Your task to perform on an android device: turn off wifi Image 0: 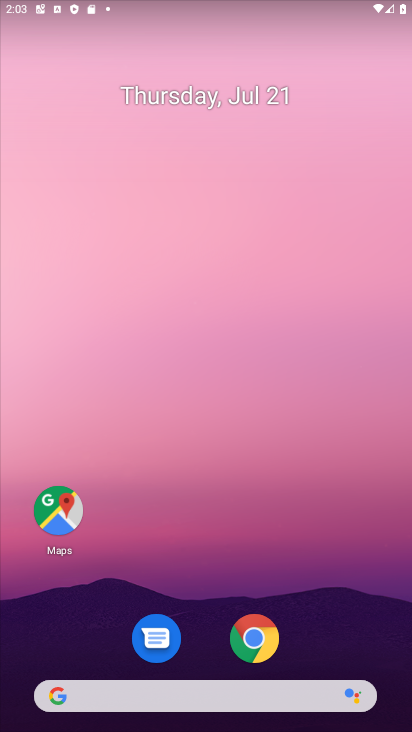
Step 0: drag from (211, 710) to (346, 174)
Your task to perform on an android device: turn off wifi Image 1: 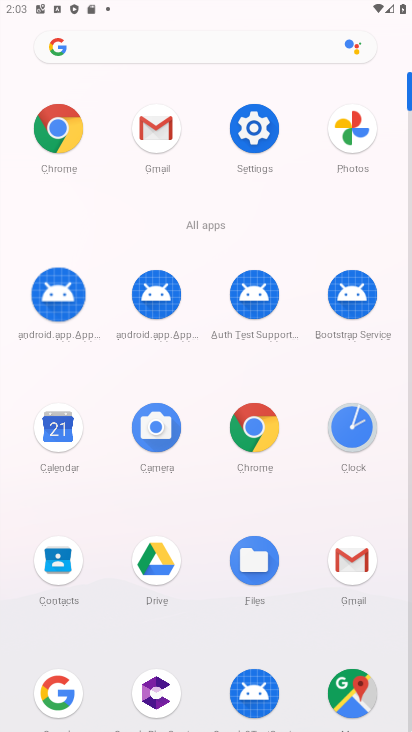
Step 1: click (245, 121)
Your task to perform on an android device: turn off wifi Image 2: 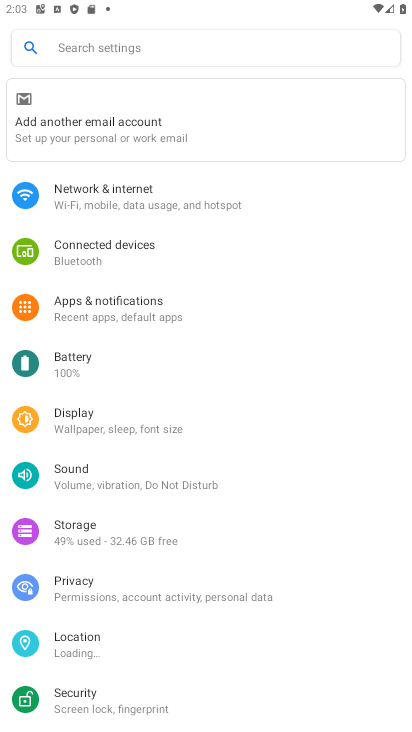
Step 2: click (205, 201)
Your task to perform on an android device: turn off wifi Image 3: 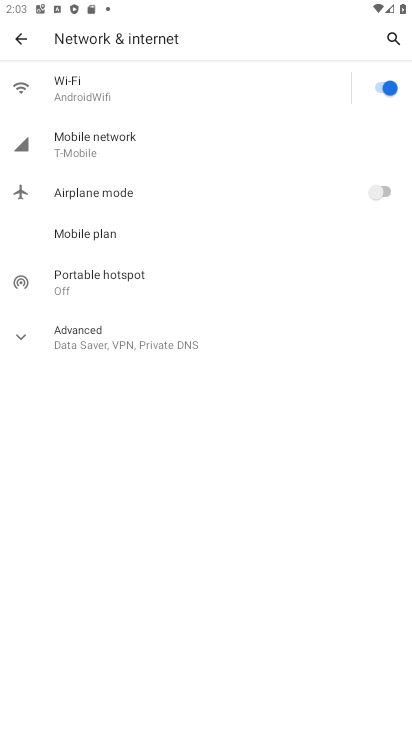
Step 3: click (396, 87)
Your task to perform on an android device: turn off wifi Image 4: 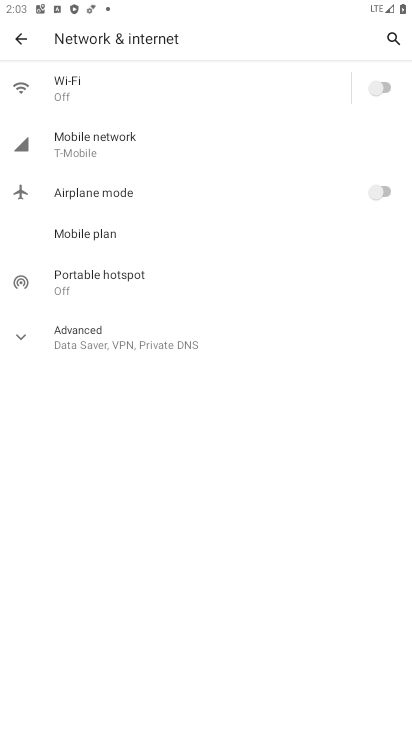
Step 4: task complete